Your task to perform on an android device: snooze an email in the gmail app Image 0: 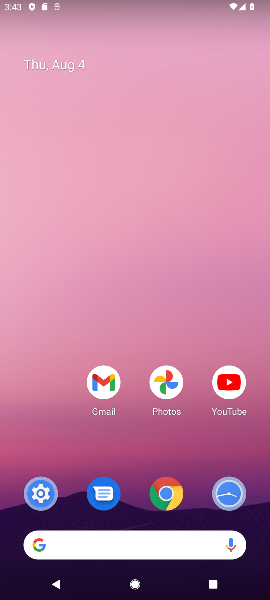
Step 0: drag from (135, 524) to (192, 254)
Your task to perform on an android device: snooze an email in the gmail app Image 1: 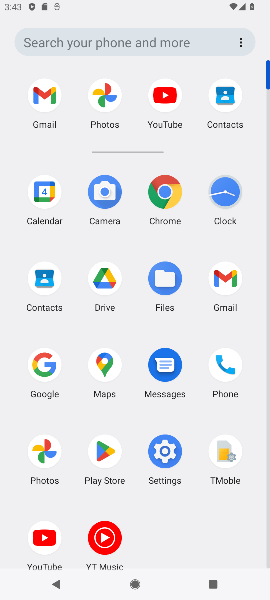
Step 1: click (223, 283)
Your task to perform on an android device: snooze an email in the gmail app Image 2: 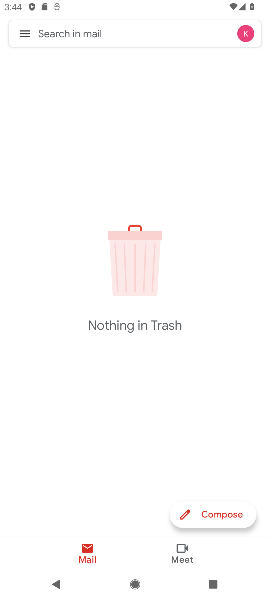
Step 2: click (28, 31)
Your task to perform on an android device: snooze an email in the gmail app Image 3: 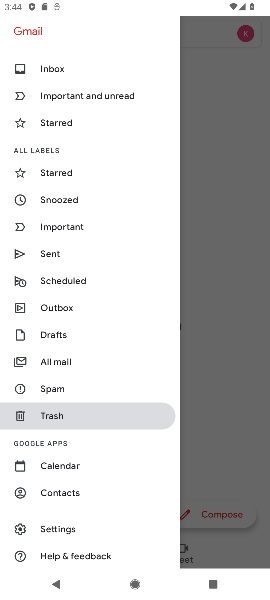
Step 3: click (60, 68)
Your task to perform on an android device: snooze an email in the gmail app Image 4: 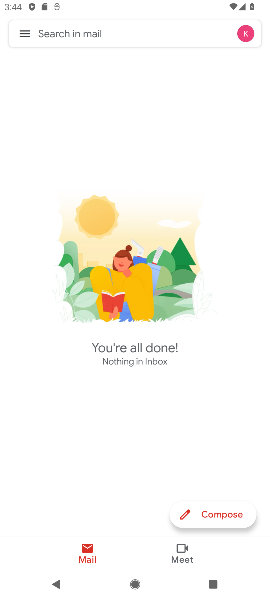
Step 4: task complete